Your task to perform on an android device: Open Yahoo.com Image 0: 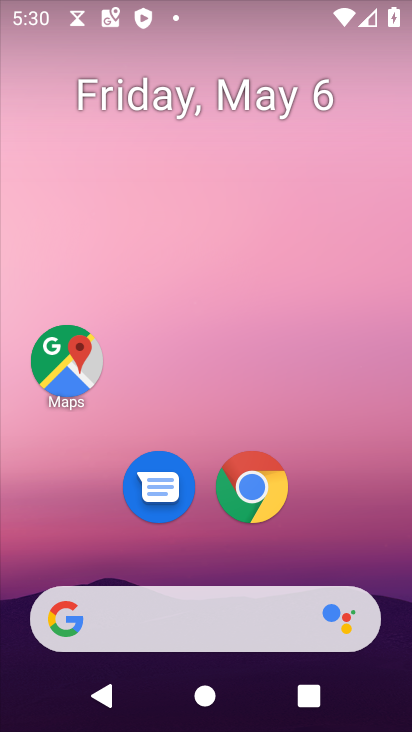
Step 0: click (255, 482)
Your task to perform on an android device: Open Yahoo.com Image 1: 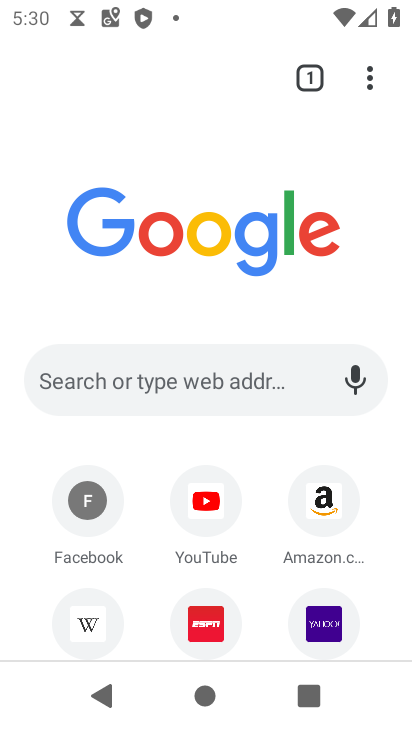
Step 1: click (251, 386)
Your task to perform on an android device: Open Yahoo.com Image 2: 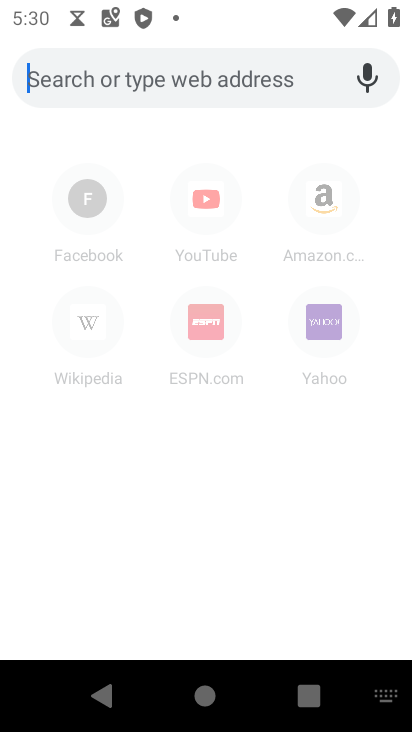
Step 2: type "Yahoo.com"
Your task to perform on an android device: Open Yahoo.com Image 3: 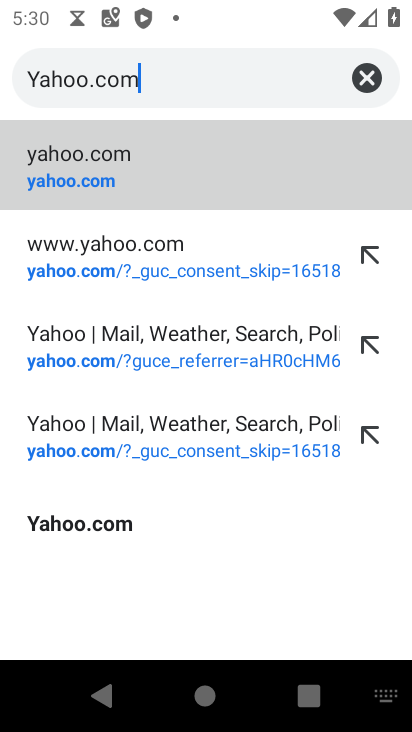
Step 3: click (104, 525)
Your task to perform on an android device: Open Yahoo.com Image 4: 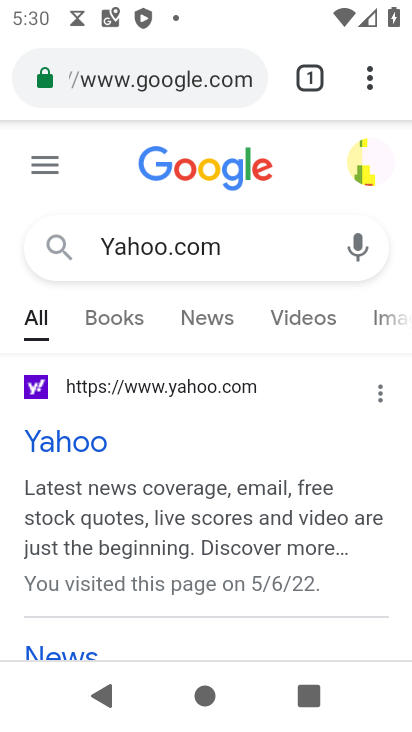
Step 4: click (67, 443)
Your task to perform on an android device: Open Yahoo.com Image 5: 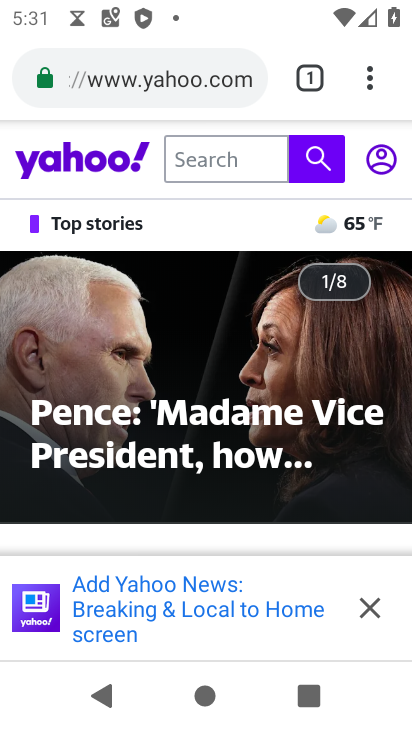
Step 5: task complete